Your task to perform on an android device: Go to privacy settings Image 0: 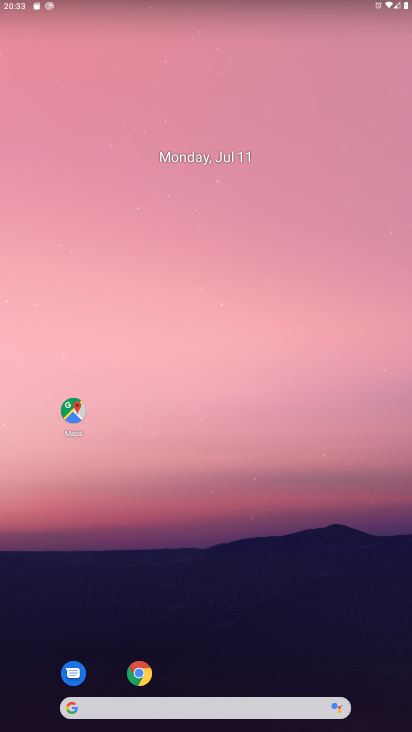
Step 0: press home button
Your task to perform on an android device: Go to privacy settings Image 1: 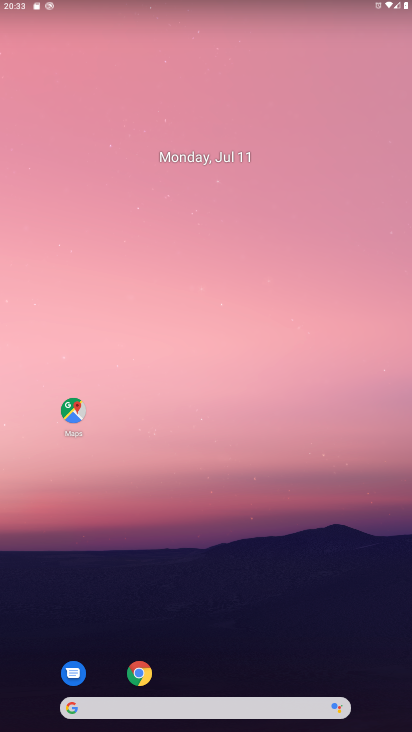
Step 1: drag from (217, 665) to (230, 3)
Your task to perform on an android device: Go to privacy settings Image 2: 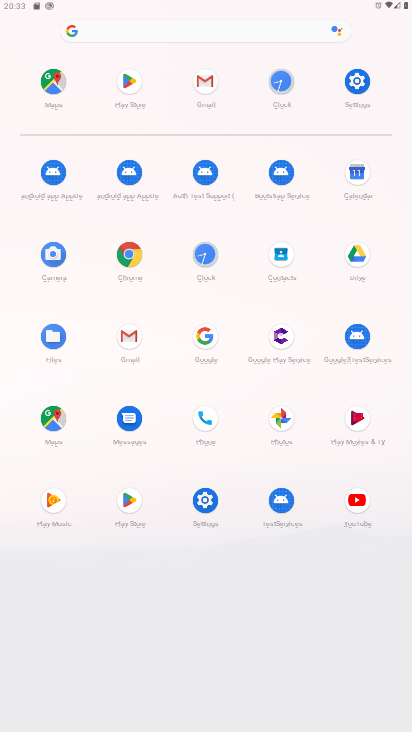
Step 2: click (354, 76)
Your task to perform on an android device: Go to privacy settings Image 3: 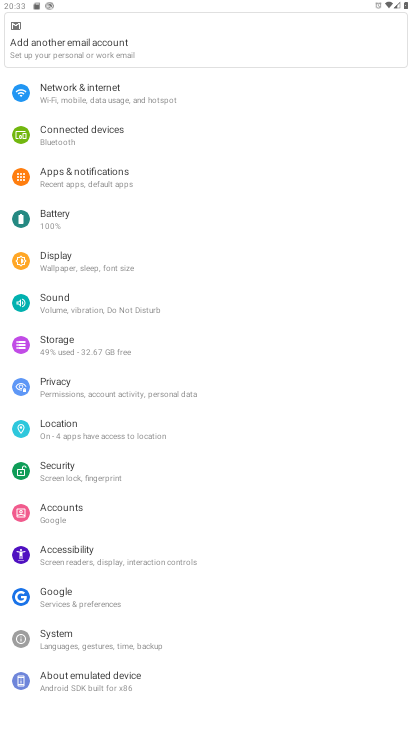
Step 3: click (77, 380)
Your task to perform on an android device: Go to privacy settings Image 4: 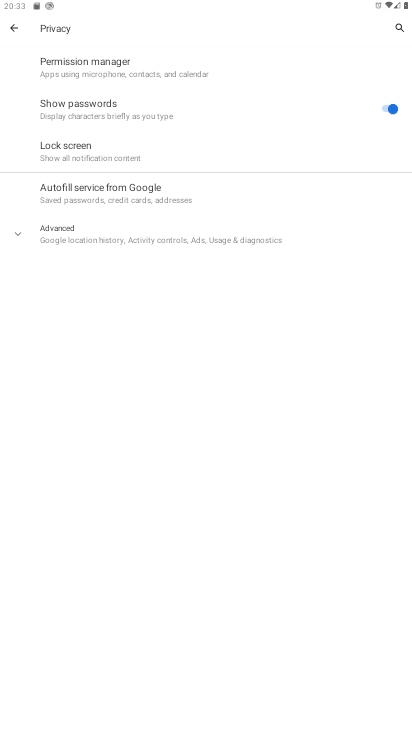
Step 4: task complete